Your task to perform on an android device: clear history in the chrome app Image 0: 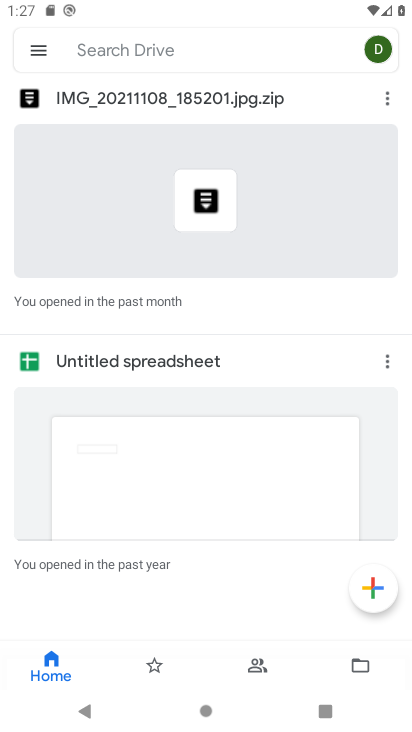
Step 0: press home button
Your task to perform on an android device: clear history in the chrome app Image 1: 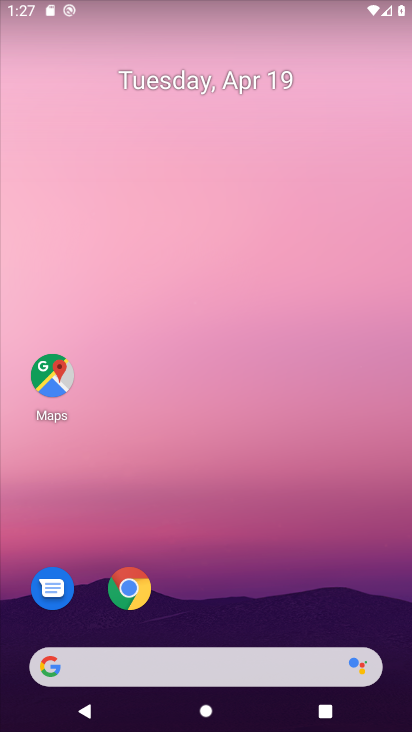
Step 1: click (141, 592)
Your task to perform on an android device: clear history in the chrome app Image 2: 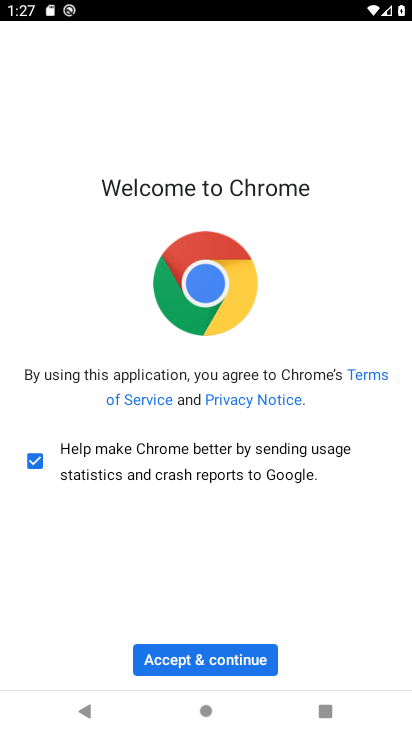
Step 2: click (207, 666)
Your task to perform on an android device: clear history in the chrome app Image 3: 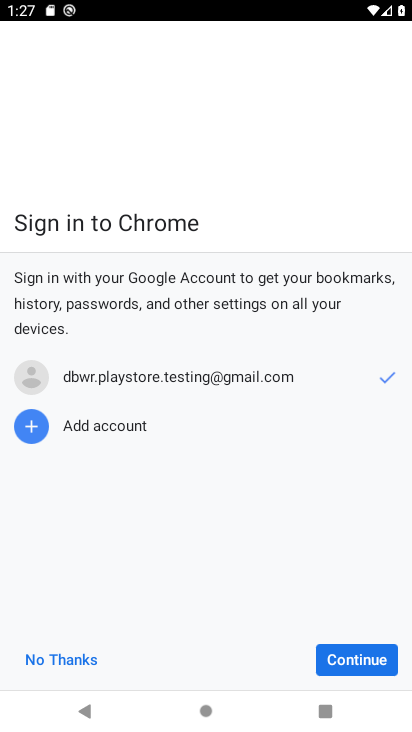
Step 3: click (342, 662)
Your task to perform on an android device: clear history in the chrome app Image 4: 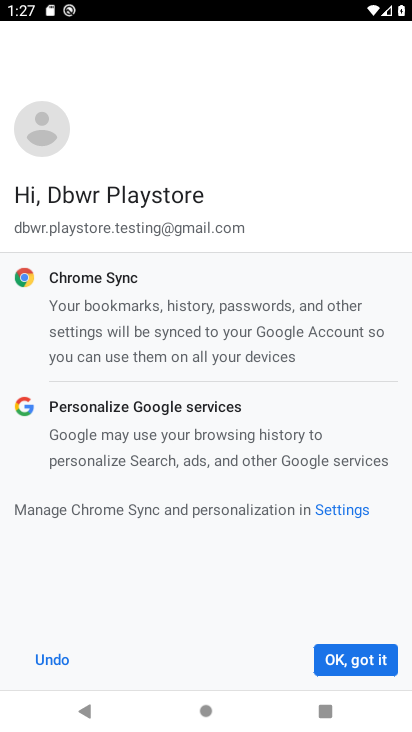
Step 4: click (342, 662)
Your task to perform on an android device: clear history in the chrome app Image 5: 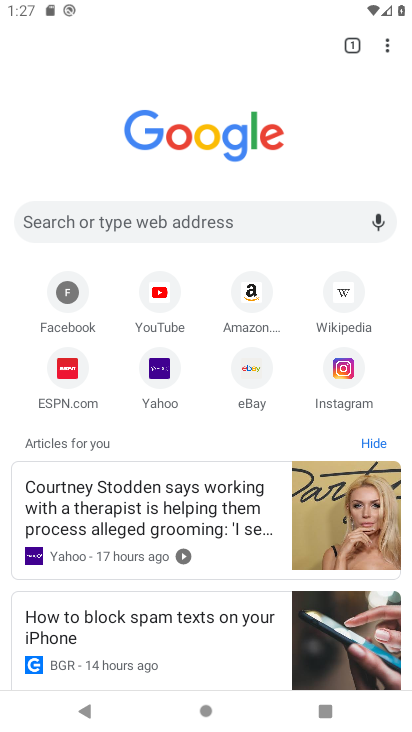
Step 5: click (385, 43)
Your task to perform on an android device: clear history in the chrome app Image 6: 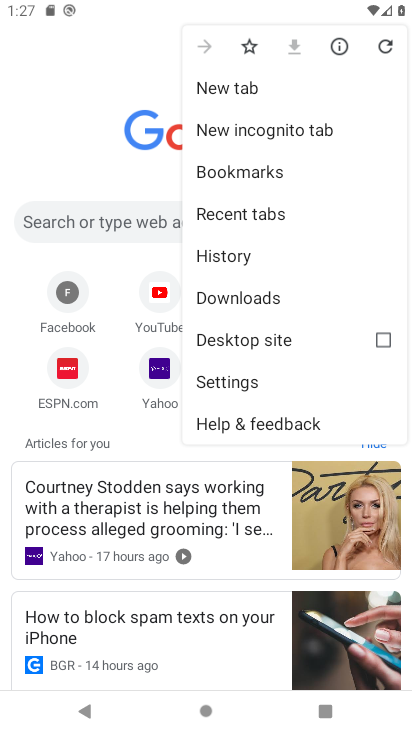
Step 6: click (249, 258)
Your task to perform on an android device: clear history in the chrome app Image 7: 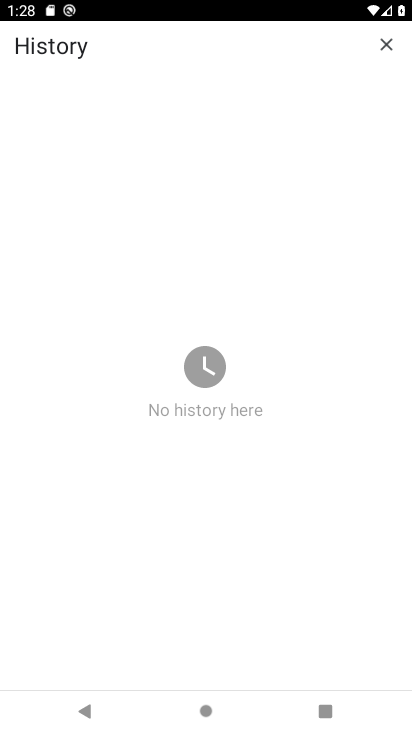
Step 7: task complete